Your task to perform on an android device: turn on showing notifications on the lock screen Image 0: 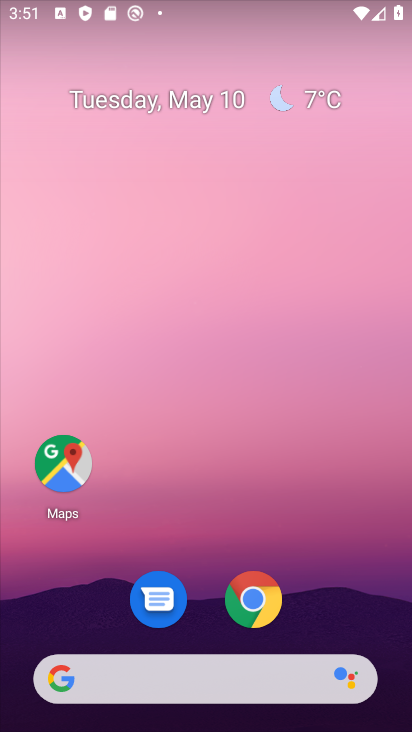
Step 0: drag from (268, 591) to (288, 209)
Your task to perform on an android device: turn on showing notifications on the lock screen Image 1: 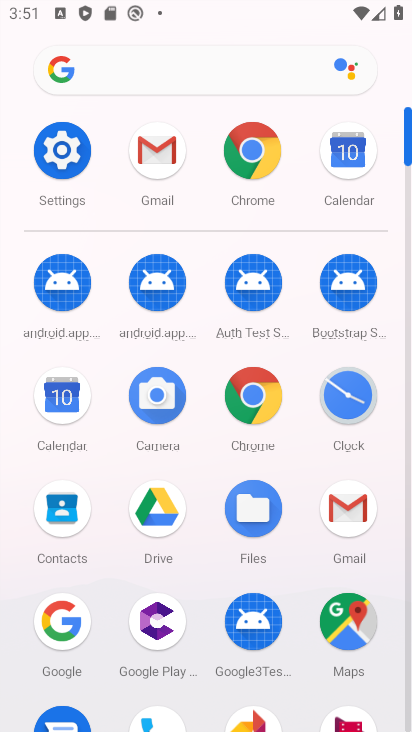
Step 1: drag from (191, 441) to (181, 188)
Your task to perform on an android device: turn on showing notifications on the lock screen Image 2: 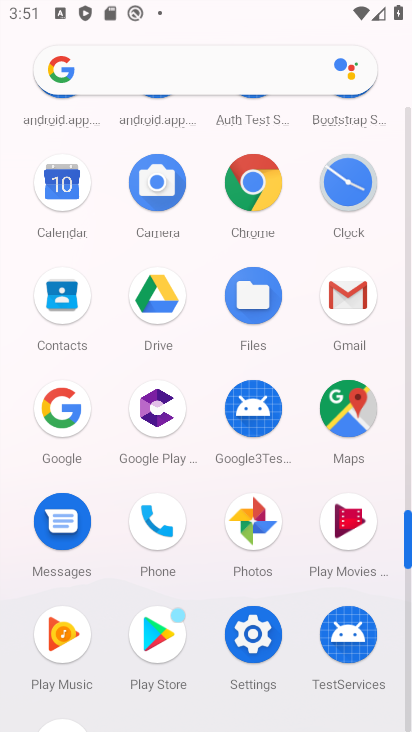
Step 2: click (253, 628)
Your task to perform on an android device: turn on showing notifications on the lock screen Image 3: 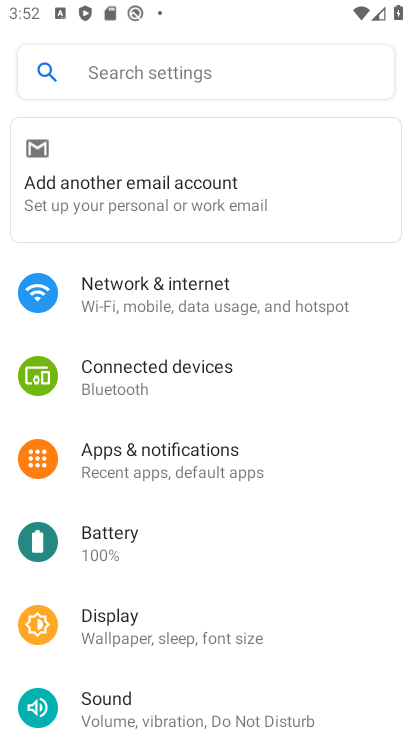
Step 3: drag from (230, 505) to (227, 356)
Your task to perform on an android device: turn on showing notifications on the lock screen Image 4: 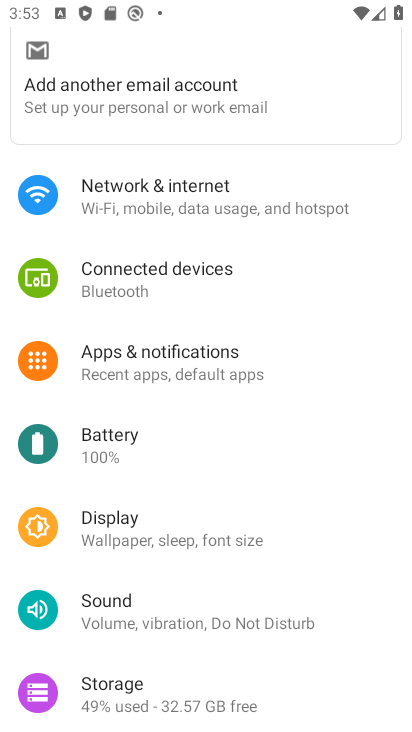
Step 4: click (246, 372)
Your task to perform on an android device: turn on showing notifications on the lock screen Image 5: 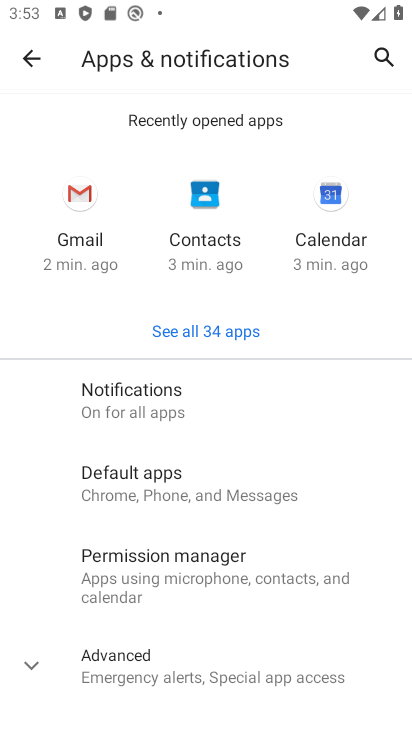
Step 5: click (250, 400)
Your task to perform on an android device: turn on showing notifications on the lock screen Image 6: 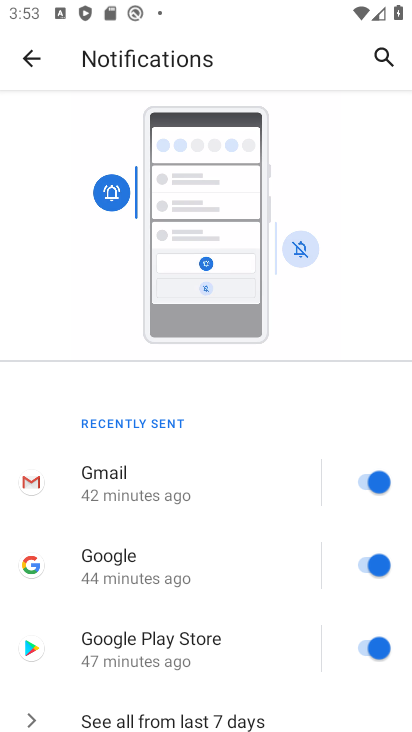
Step 6: drag from (219, 565) to (286, 124)
Your task to perform on an android device: turn on showing notifications on the lock screen Image 7: 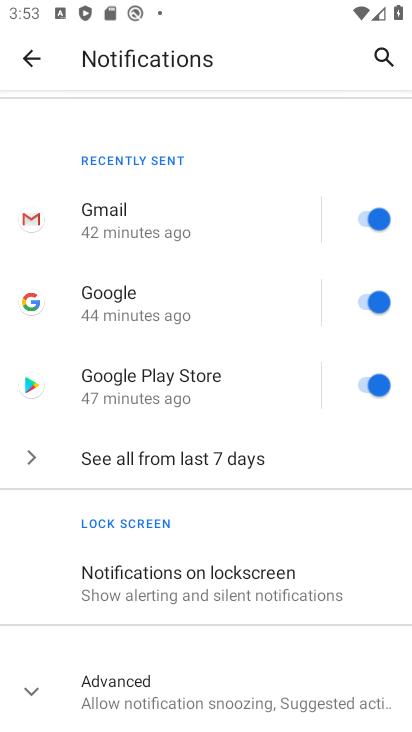
Step 7: click (178, 569)
Your task to perform on an android device: turn on showing notifications on the lock screen Image 8: 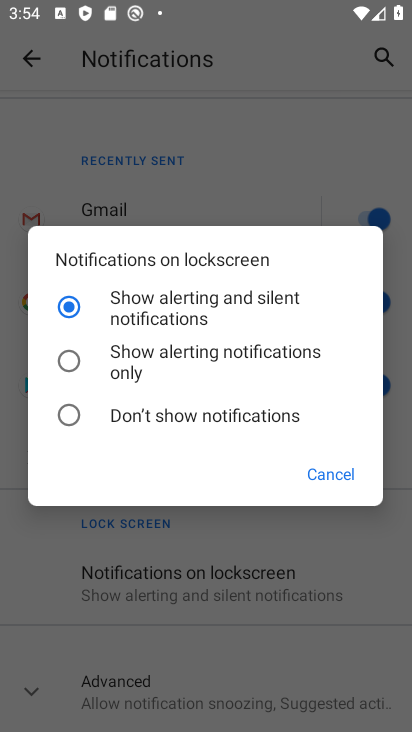
Step 8: task complete